Your task to perform on an android device: install app "Gmail" Image 0: 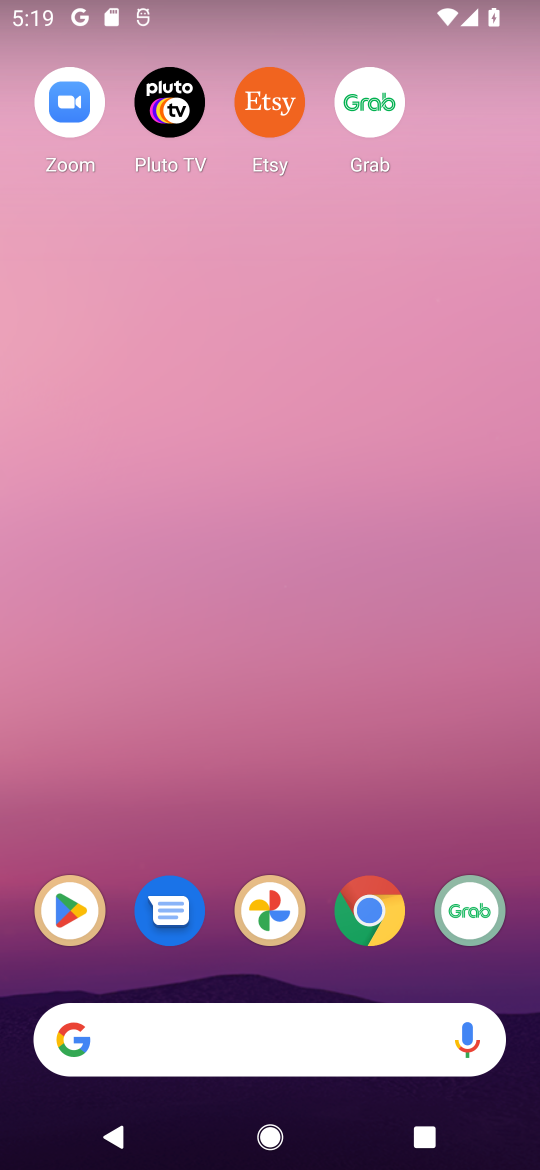
Step 0: click (72, 919)
Your task to perform on an android device: install app "Gmail" Image 1: 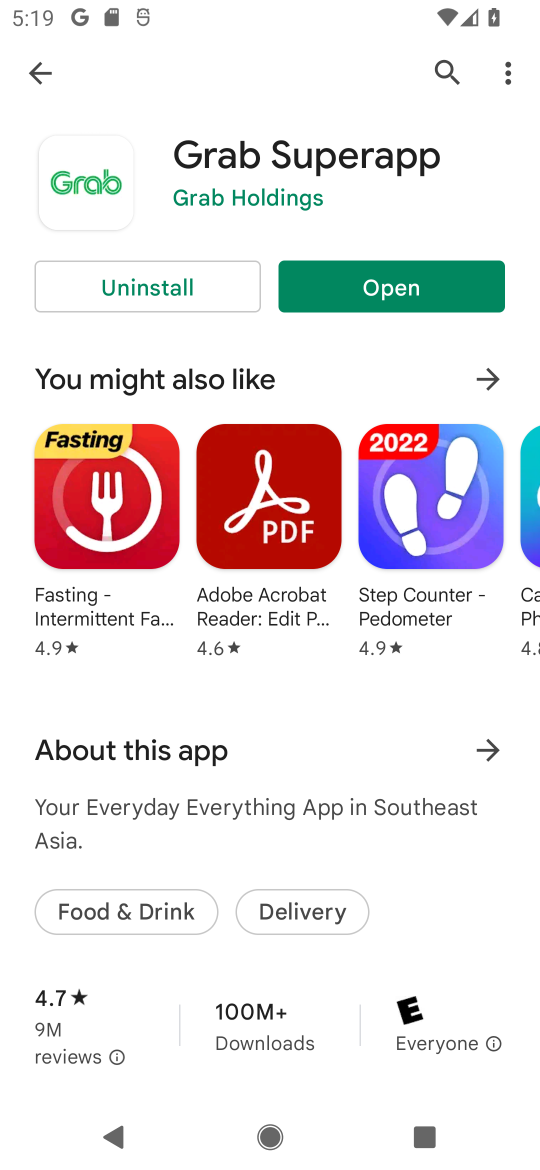
Step 1: click (451, 73)
Your task to perform on an android device: install app "Gmail" Image 2: 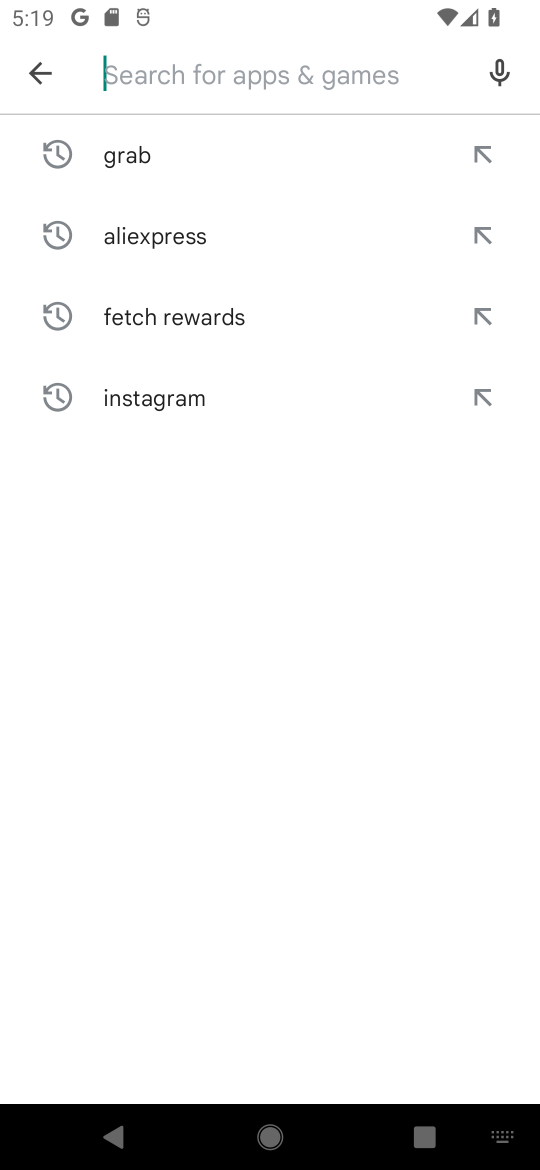
Step 2: type "gmail"
Your task to perform on an android device: install app "Gmail" Image 3: 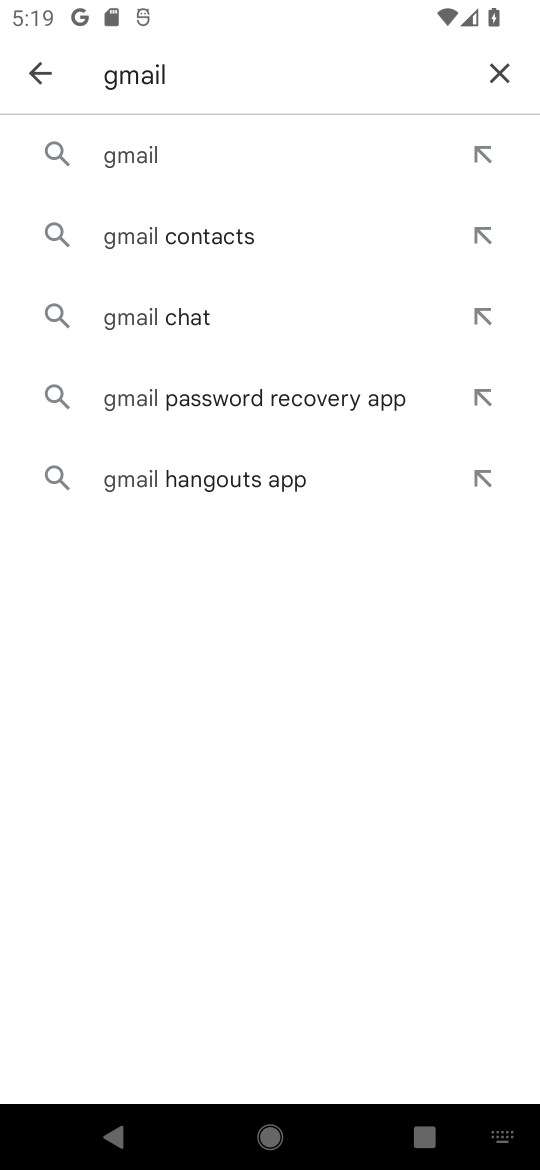
Step 3: click (131, 160)
Your task to perform on an android device: install app "Gmail" Image 4: 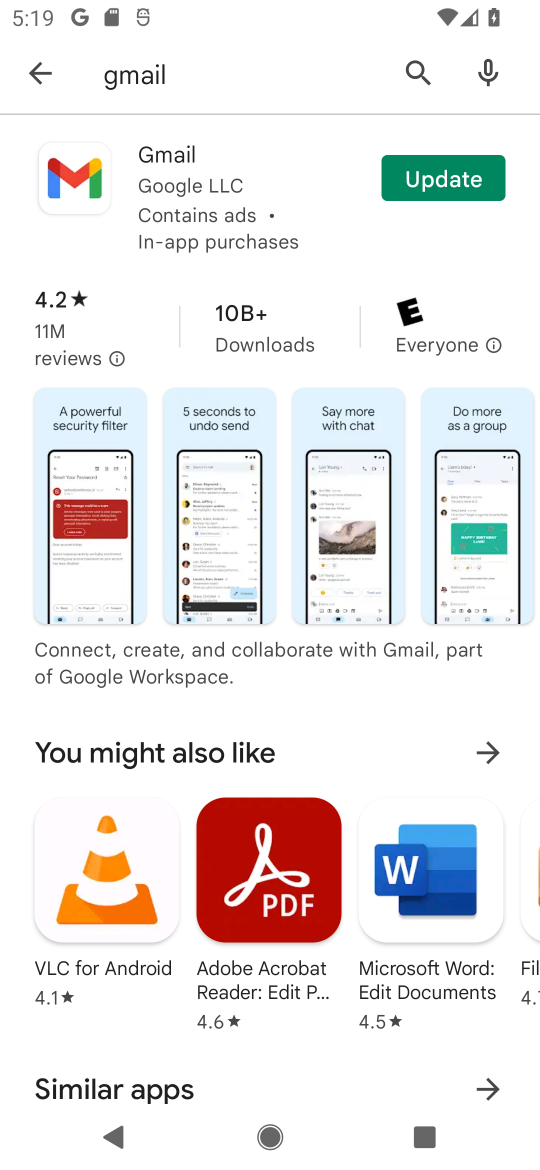
Step 4: click (168, 144)
Your task to perform on an android device: install app "Gmail" Image 5: 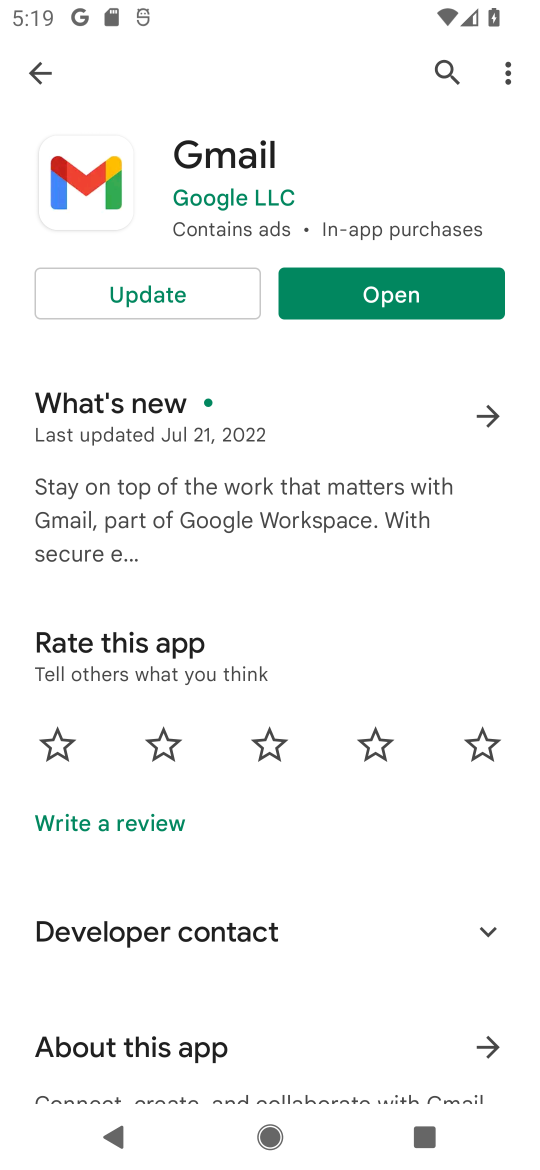
Step 5: task complete